Your task to perform on an android device: turn off sleep mode Image 0: 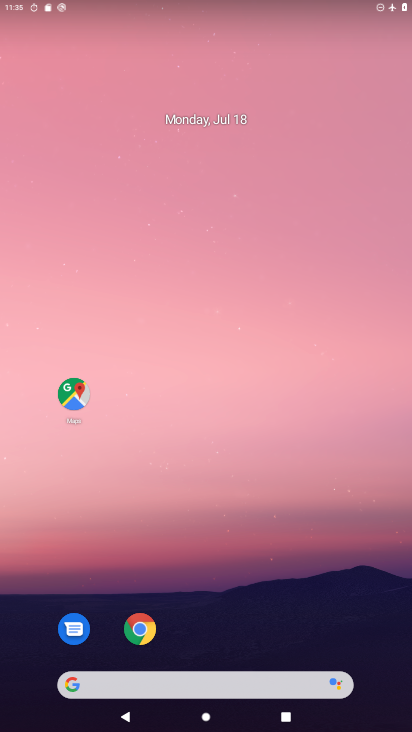
Step 0: drag from (339, 592) to (275, 85)
Your task to perform on an android device: turn off sleep mode Image 1: 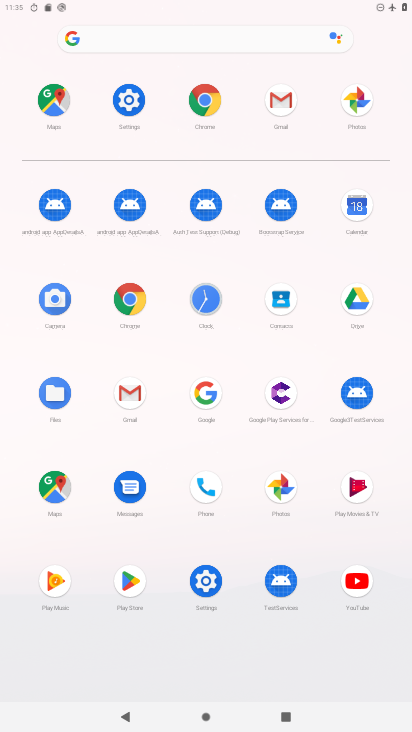
Step 1: click (137, 101)
Your task to perform on an android device: turn off sleep mode Image 2: 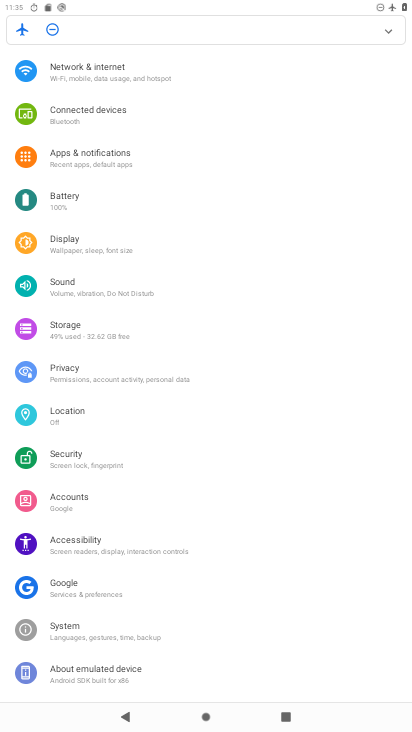
Step 2: click (96, 253)
Your task to perform on an android device: turn off sleep mode Image 3: 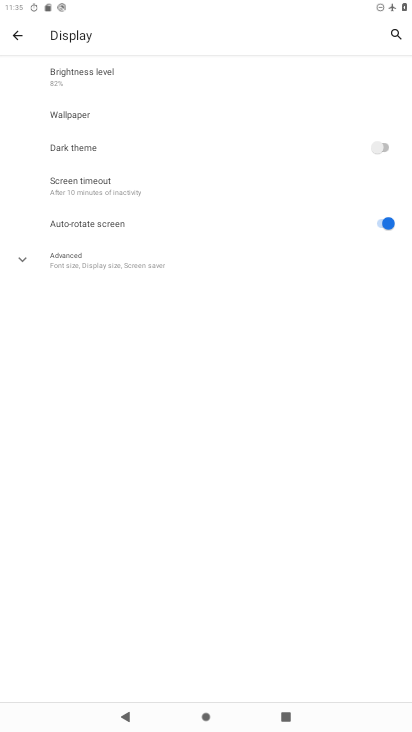
Step 3: click (121, 186)
Your task to perform on an android device: turn off sleep mode Image 4: 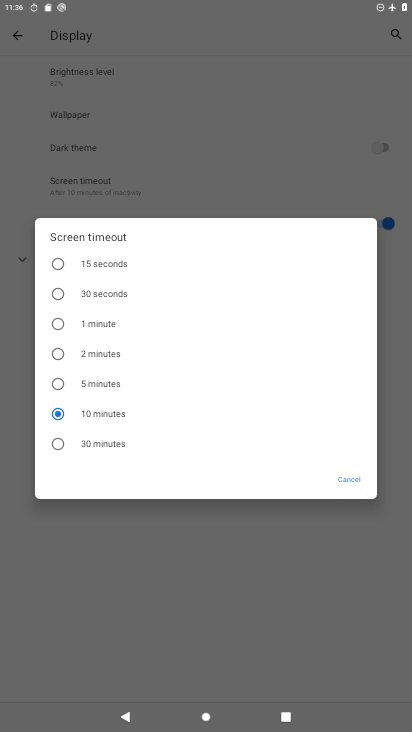
Step 4: task complete